Your task to perform on an android device: Open Wikipedia Image 0: 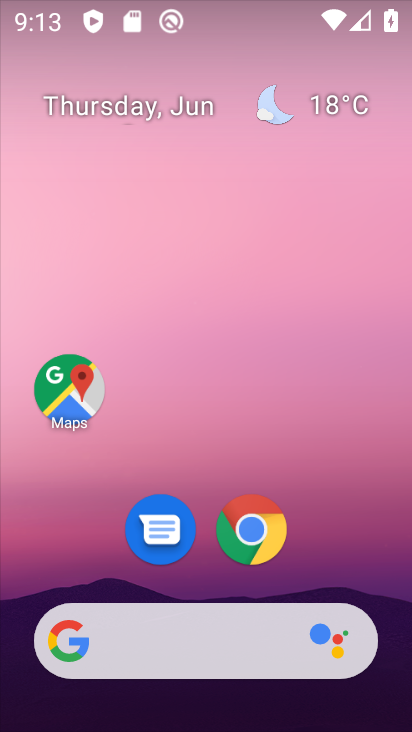
Step 0: click (163, 0)
Your task to perform on an android device: Open Wikipedia Image 1: 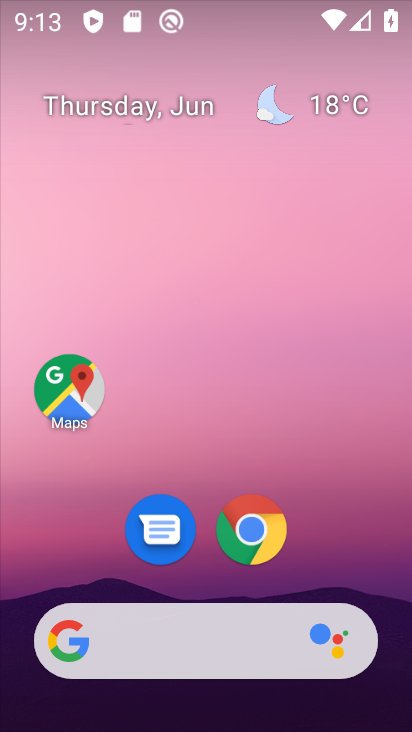
Step 1: drag from (254, 478) to (192, 57)
Your task to perform on an android device: Open Wikipedia Image 2: 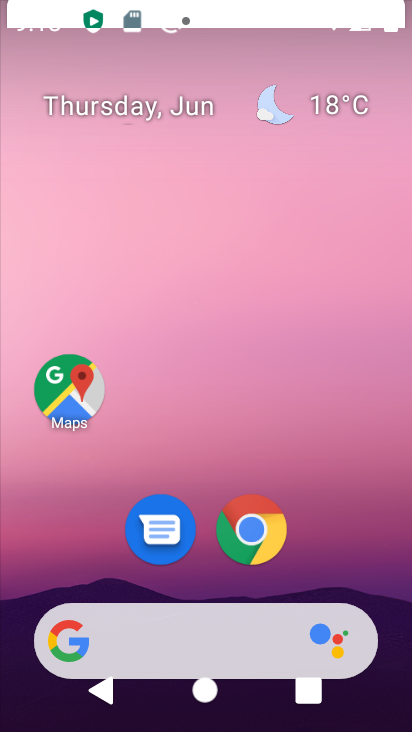
Step 2: drag from (255, 542) to (244, 81)
Your task to perform on an android device: Open Wikipedia Image 3: 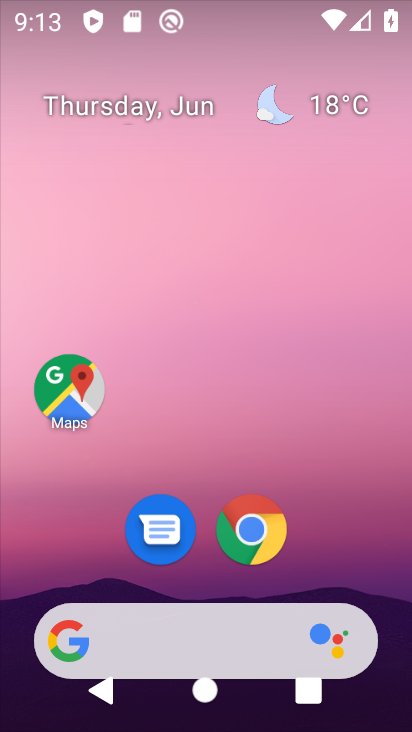
Step 3: drag from (264, 507) to (192, 38)
Your task to perform on an android device: Open Wikipedia Image 4: 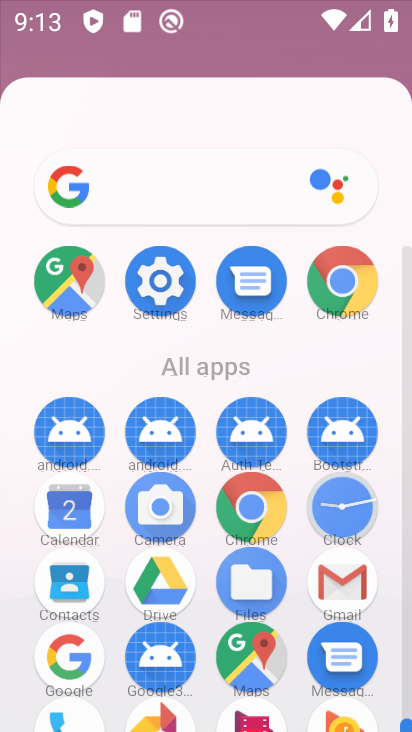
Step 4: drag from (246, 505) to (228, 53)
Your task to perform on an android device: Open Wikipedia Image 5: 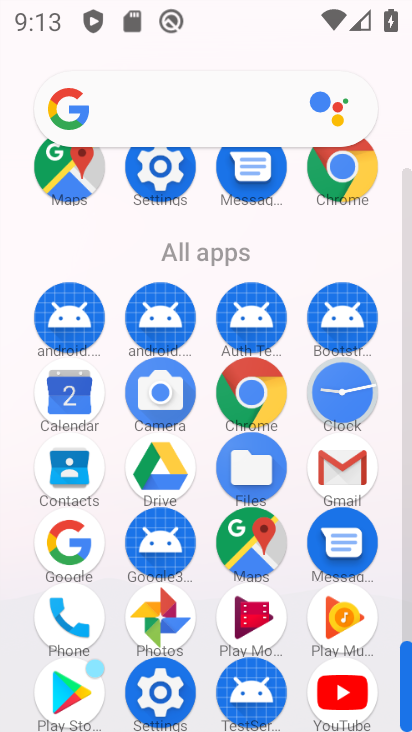
Step 5: drag from (211, 507) to (198, 142)
Your task to perform on an android device: Open Wikipedia Image 6: 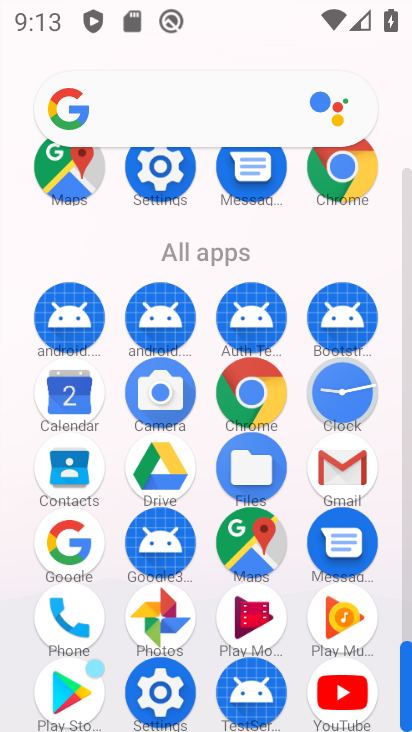
Step 6: click (347, 178)
Your task to perform on an android device: Open Wikipedia Image 7: 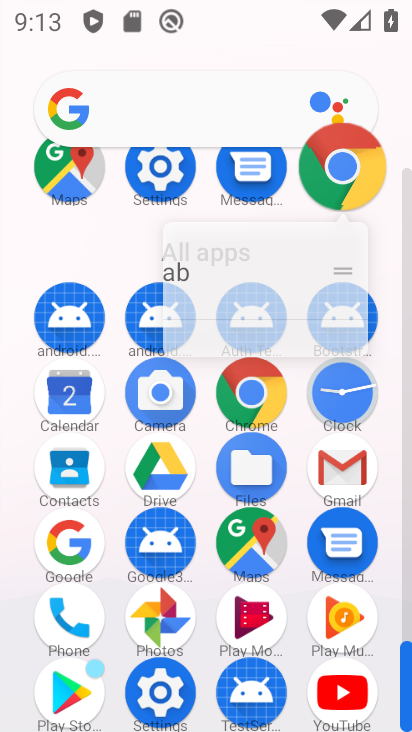
Step 7: click (349, 180)
Your task to perform on an android device: Open Wikipedia Image 8: 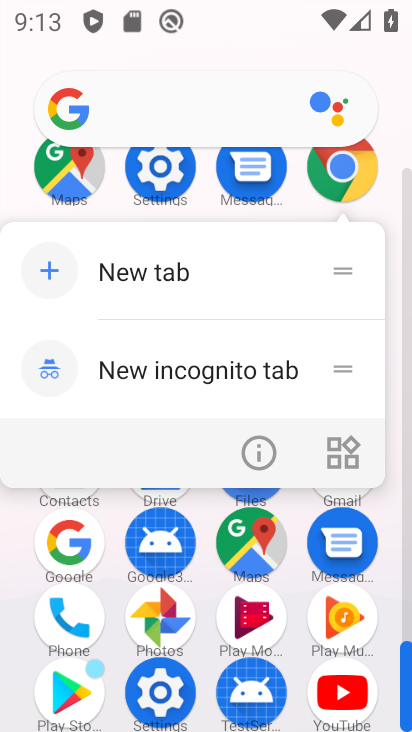
Step 8: click (130, 285)
Your task to perform on an android device: Open Wikipedia Image 9: 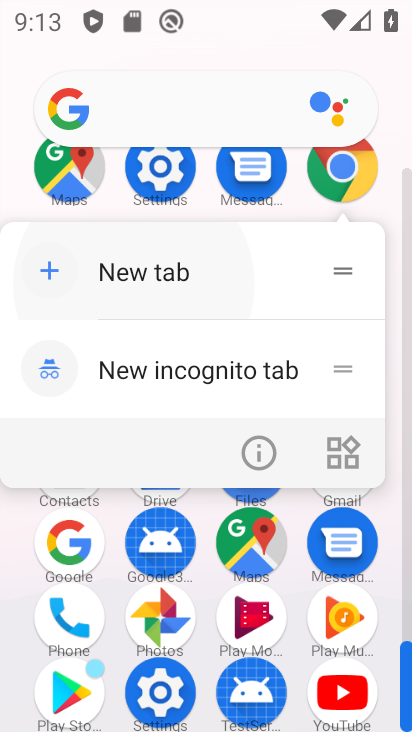
Step 9: click (135, 273)
Your task to perform on an android device: Open Wikipedia Image 10: 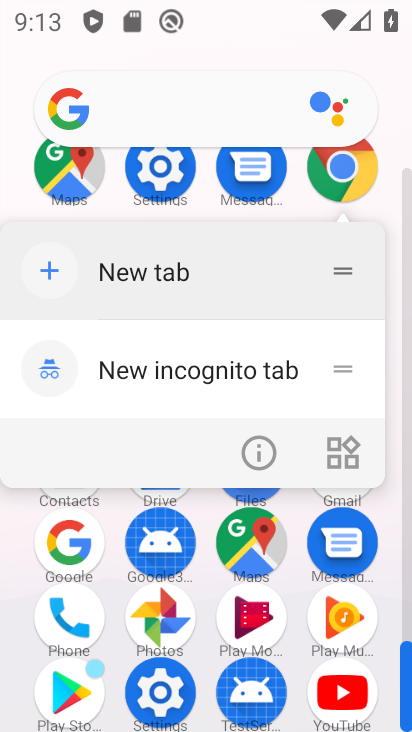
Step 10: click (132, 253)
Your task to perform on an android device: Open Wikipedia Image 11: 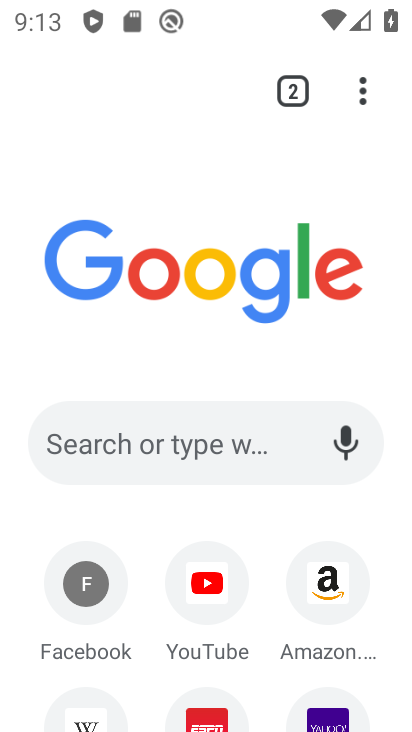
Step 11: drag from (233, 534) to (245, 142)
Your task to perform on an android device: Open Wikipedia Image 12: 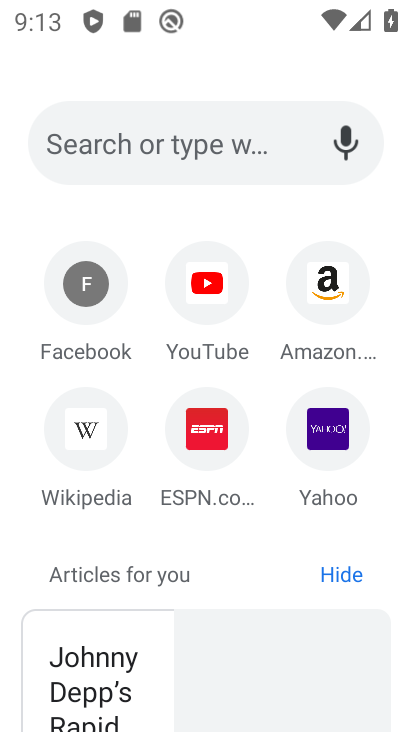
Step 12: drag from (270, 454) to (212, 192)
Your task to perform on an android device: Open Wikipedia Image 13: 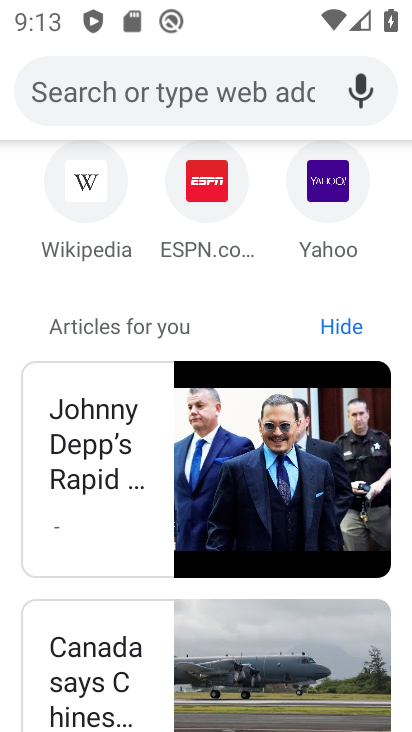
Step 13: click (78, 183)
Your task to perform on an android device: Open Wikipedia Image 14: 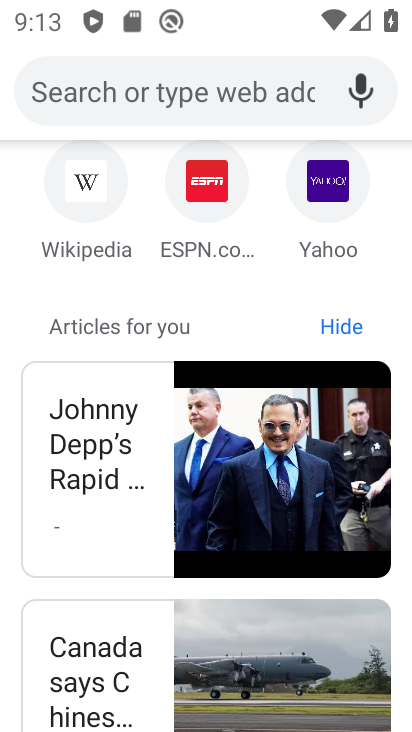
Step 14: click (81, 183)
Your task to perform on an android device: Open Wikipedia Image 15: 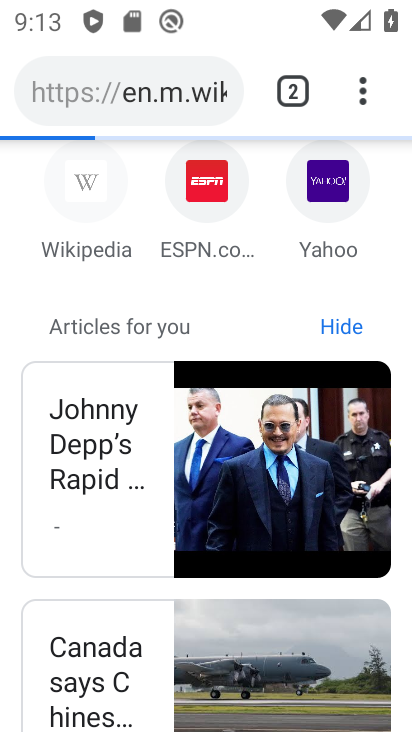
Step 15: click (85, 184)
Your task to perform on an android device: Open Wikipedia Image 16: 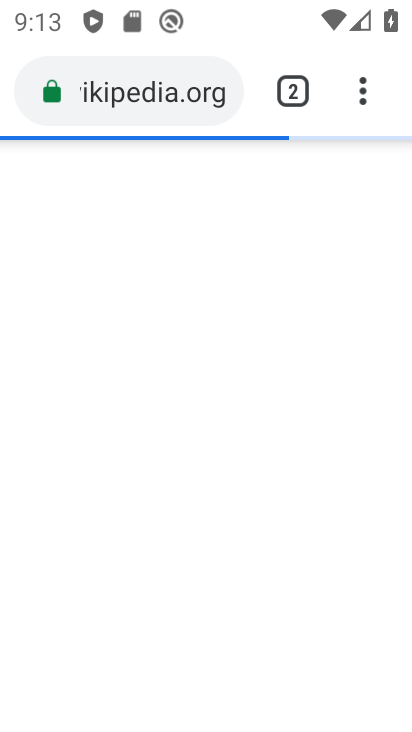
Step 16: click (93, 183)
Your task to perform on an android device: Open Wikipedia Image 17: 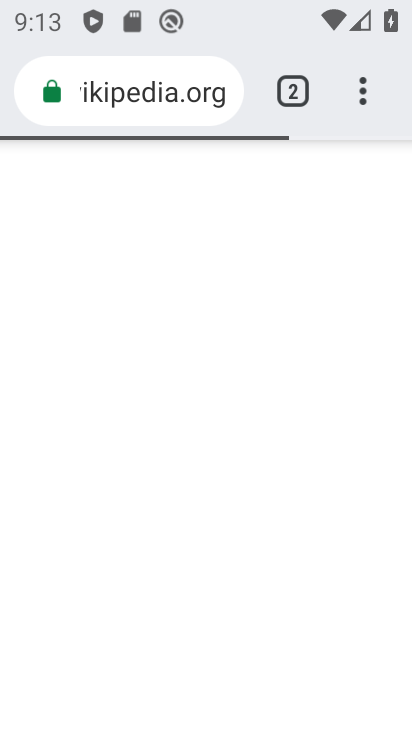
Step 17: click (93, 183)
Your task to perform on an android device: Open Wikipedia Image 18: 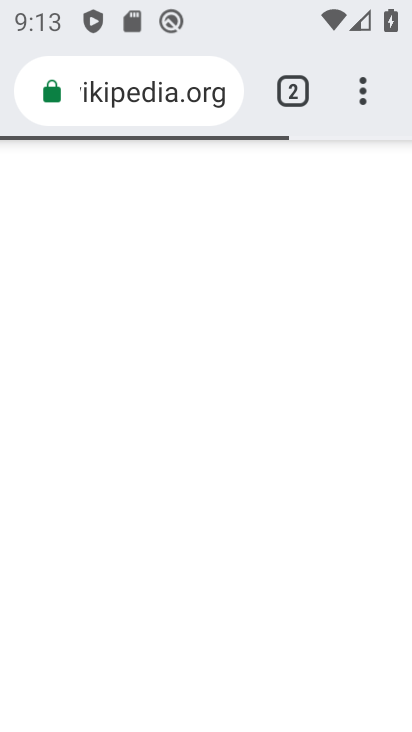
Step 18: click (93, 183)
Your task to perform on an android device: Open Wikipedia Image 19: 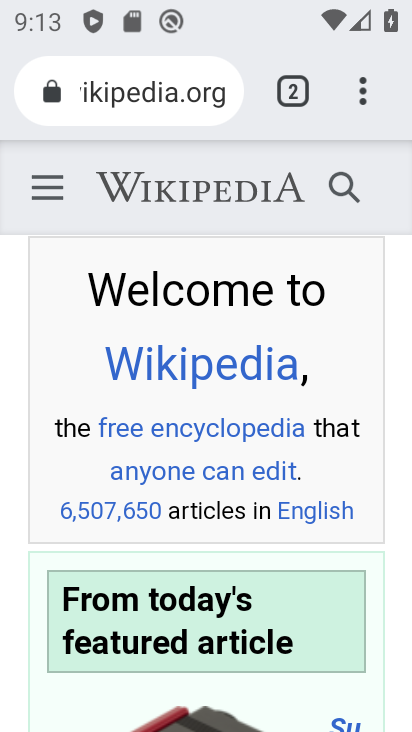
Step 19: task complete